Your task to perform on an android device: turn off location Image 0: 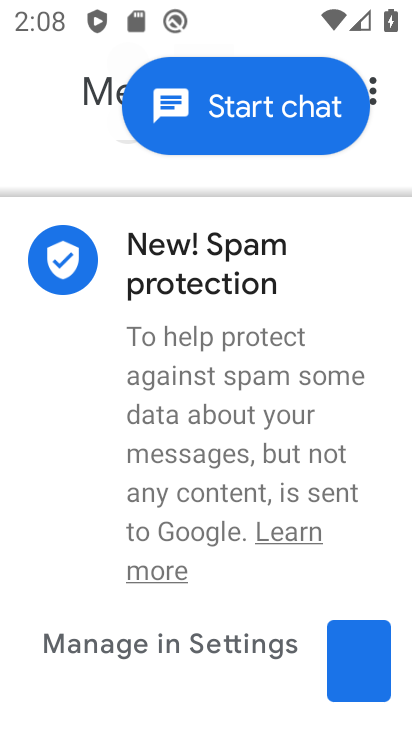
Step 0: press back button
Your task to perform on an android device: turn off location Image 1: 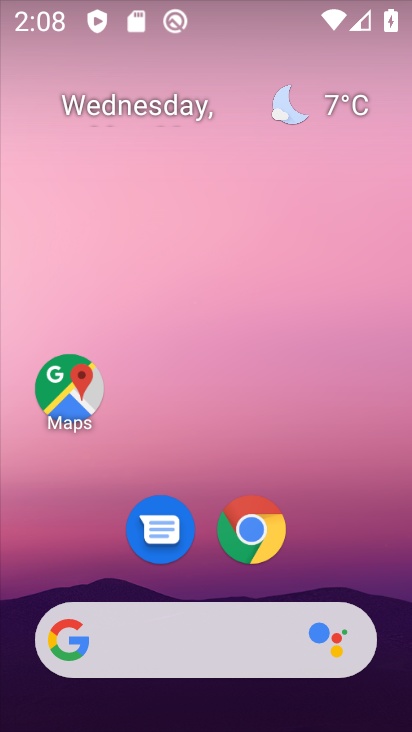
Step 1: drag from (51, 567) to (318, 79)
Your task to perform on an android device: turn off location Image 2: 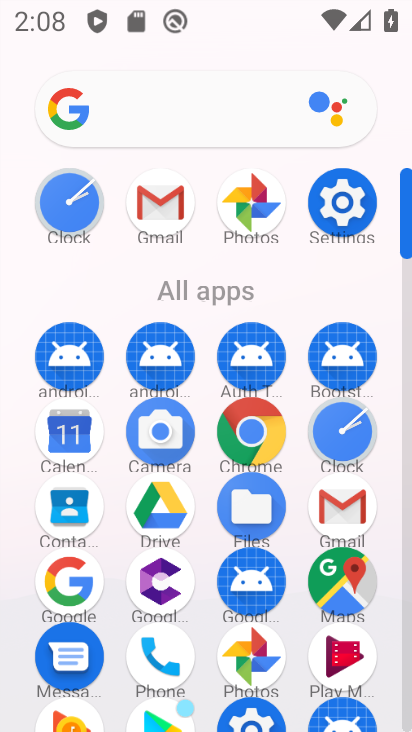
Step 2: click (353, 188)
Your task to perform on an android device: turn off location Image 3: 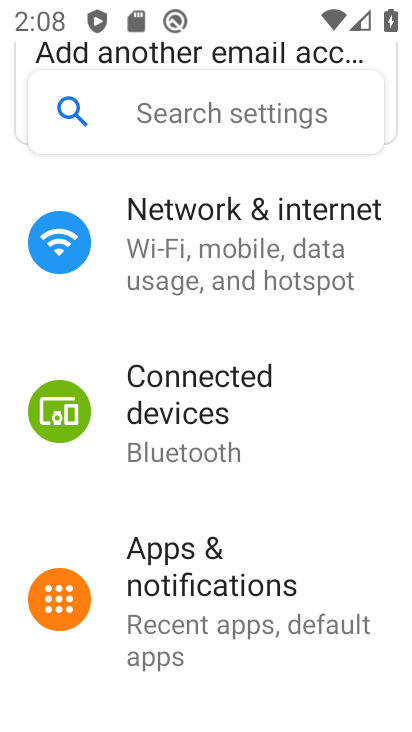
Step 3: drag from (121, 673) to (226, 256)
Your task to perform on an android device: turn off location Image 4: 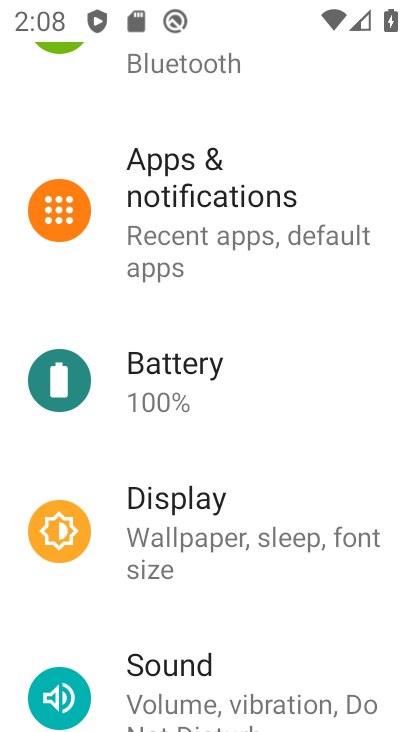
Step 4: drag from (193, 702) to (258, 313)
Your task to perform on an android device: turn off location Image 5: 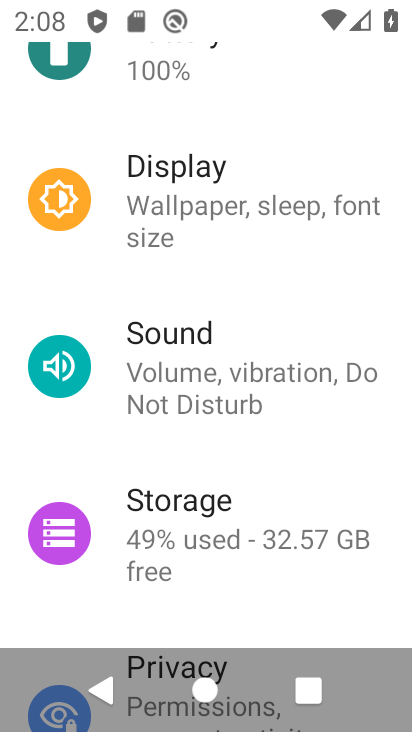
Step 5: drag from (172, 621) to (300, 223)
Your task to perform on an android device: turn off location Image 6: 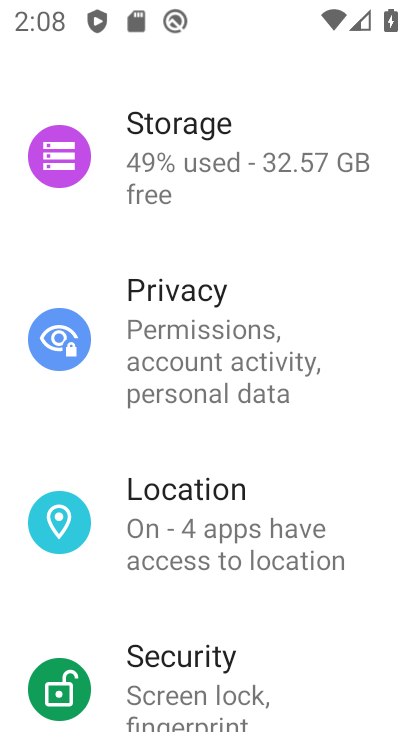
Step 6: click (222, 520)
Your task to perform on an android device: turn off location Image 7: 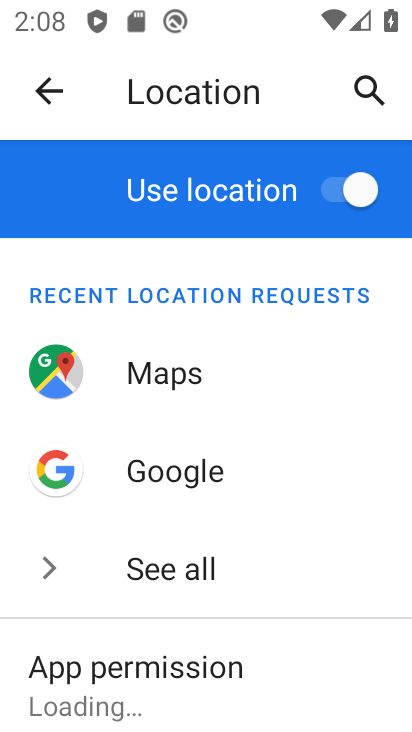
Step 7: click (358, 199)
Your task to perform on an android device: turn off location Image 8: 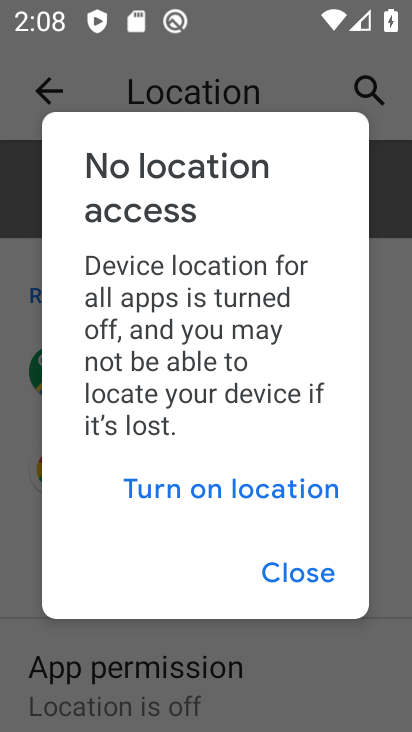
Step 8: task complete